Your task to perform on an android device: open app "LiveIn - Share Your Moment" (install if not already installed) Image 0: 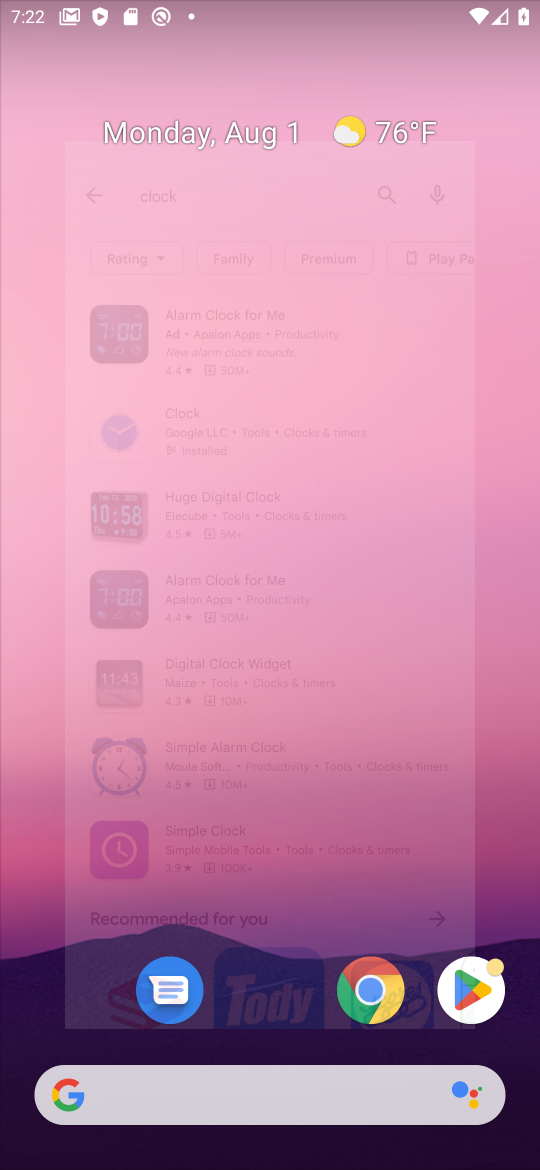
Step 0: click (173, 405)
Your task to perform on an android device: open app "LiveIn - Share Your Moment" (install if not already installed) Image 1: 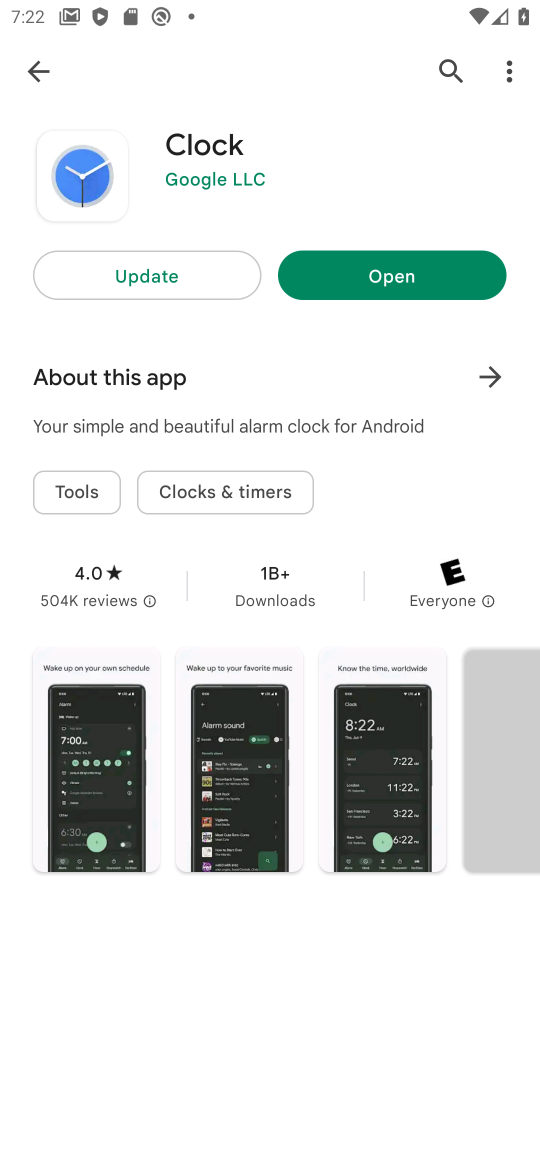
Step 1: press home button
Your task to perform on an android device: open app "LiveIn - Share Your Moment" (install if not already installed) Image 2: 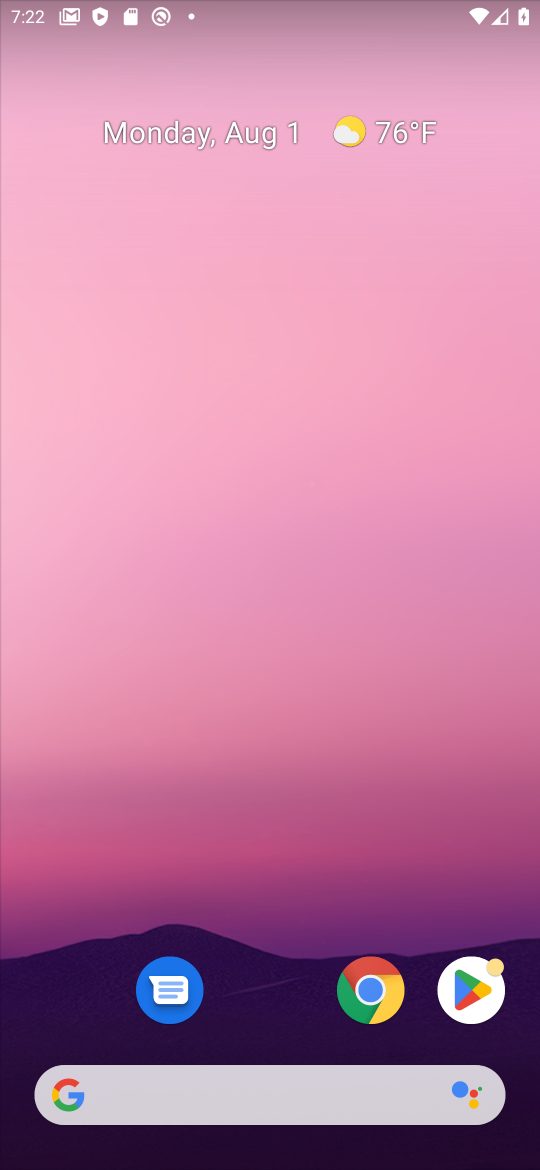
Step 2: press home button
Your task to perform on an android device: open app "LiveIn - Share Your Moment" (install if not already installed) Image 3: 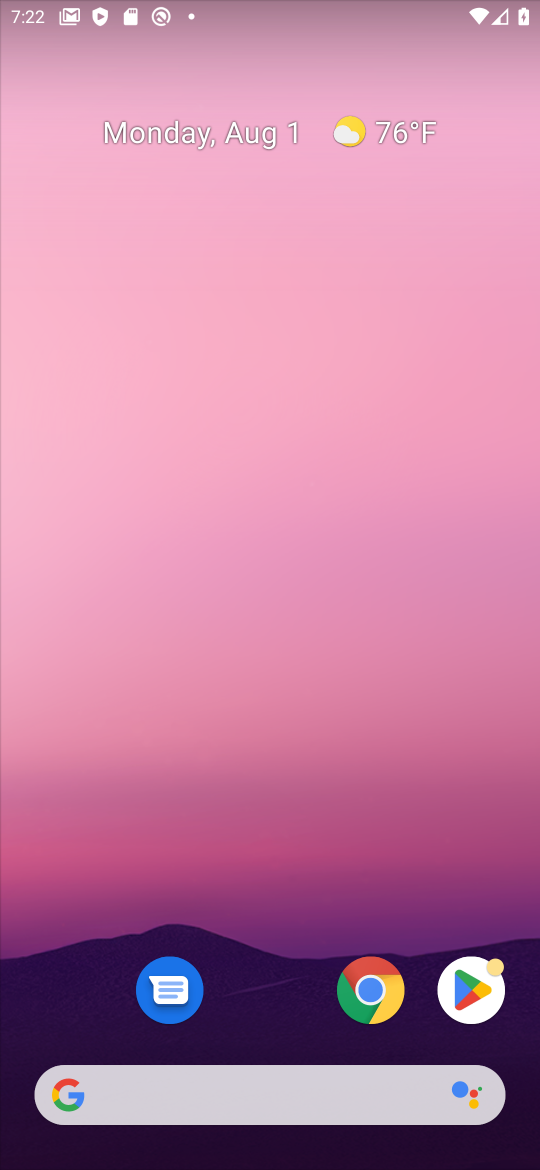
Step 3: click (458, 994)
Your task to perform on an android device: open app "LiveIn - Share Your Moment" (install if not already installed) Image 4: 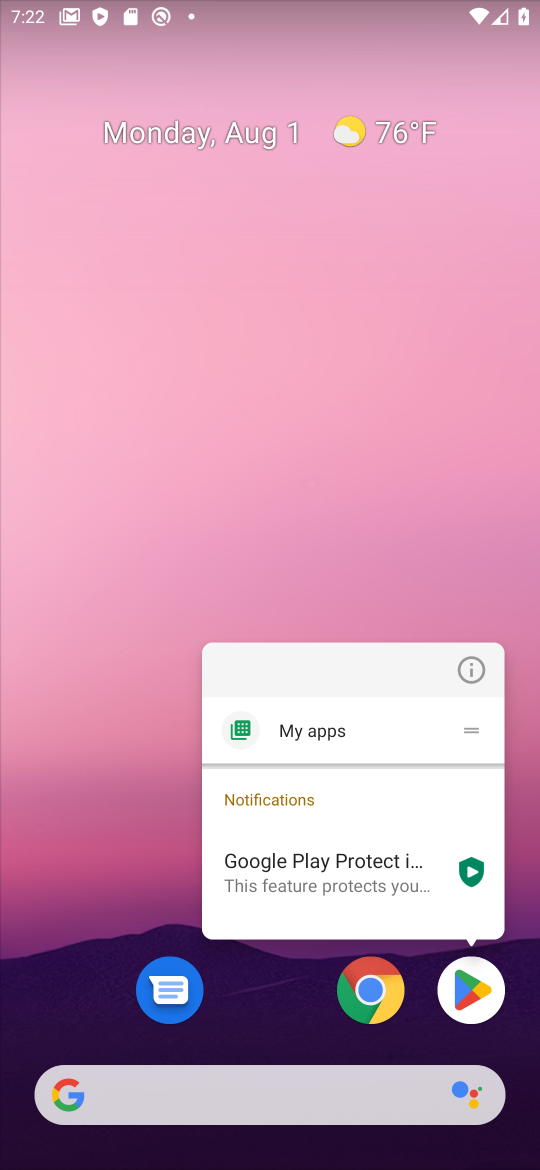
Step 4: click (450, 1003)
Your task to perform on an android device: open app "LiveIn - Share Your Moment" (install if not already installed) Image 5: 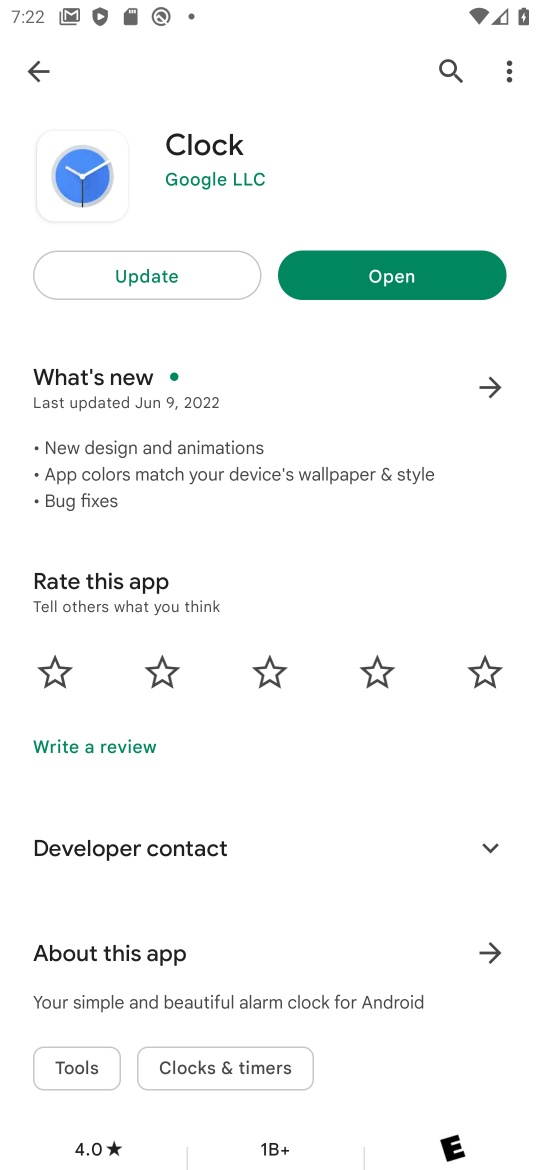
Step 5: click (443, 60)
Your task to perform on an android device: open app "LiveIn - Share Your Moment" (install if not already installed) Image 6: 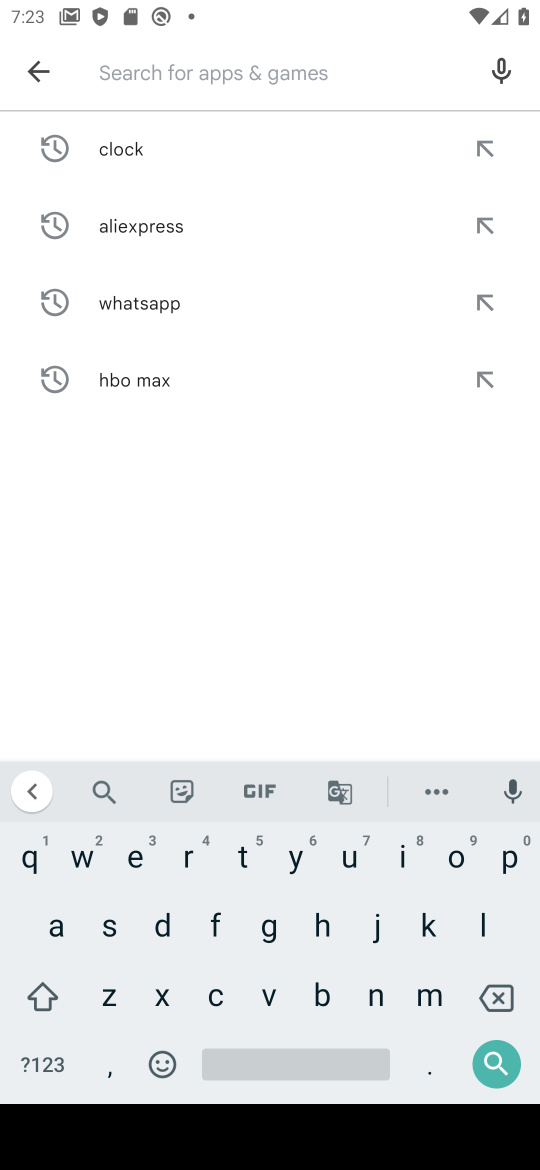
Step 6: click (487, 914)
Your task to perform on an android device: open app "LiveIn - Share Your Moment" (install if not already installed) Image 7: 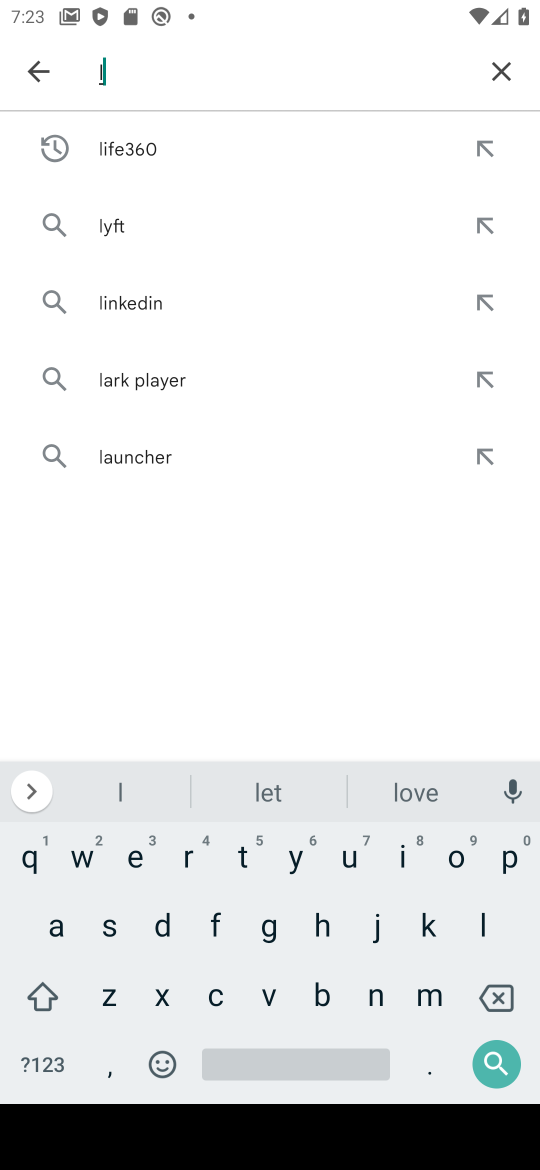
Step 7: click (403, 858)
Your task to perform on an android device: open app "LiveIn - Share Your Moment" (install if not already installed) Image 8: 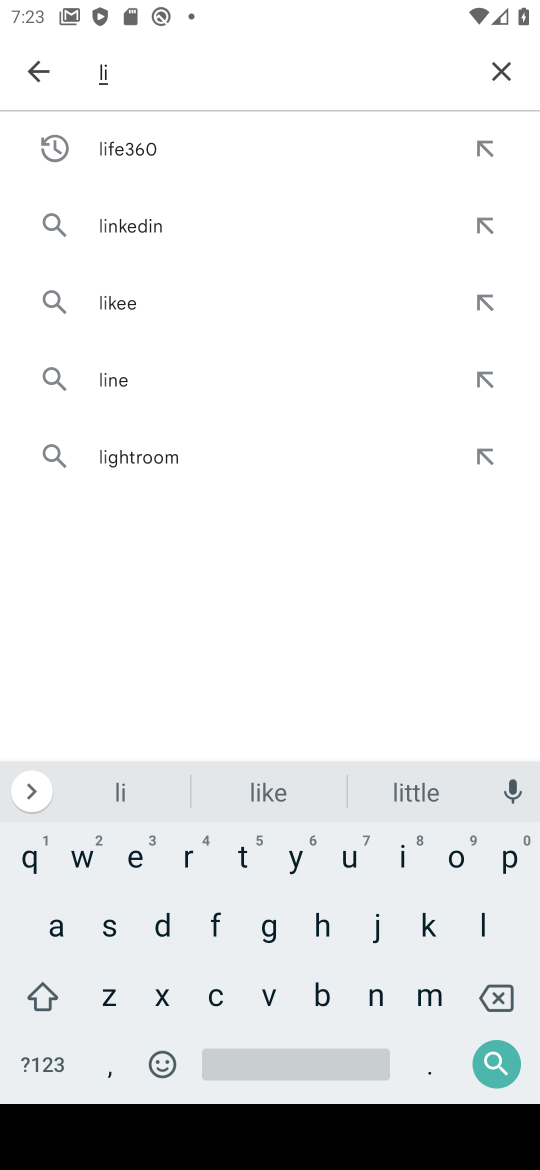
Step 8: click (292, 973)
Your task to perform on an android device: open app "LiveIn - Share Your Moment" (install if not already installed) Image 9: 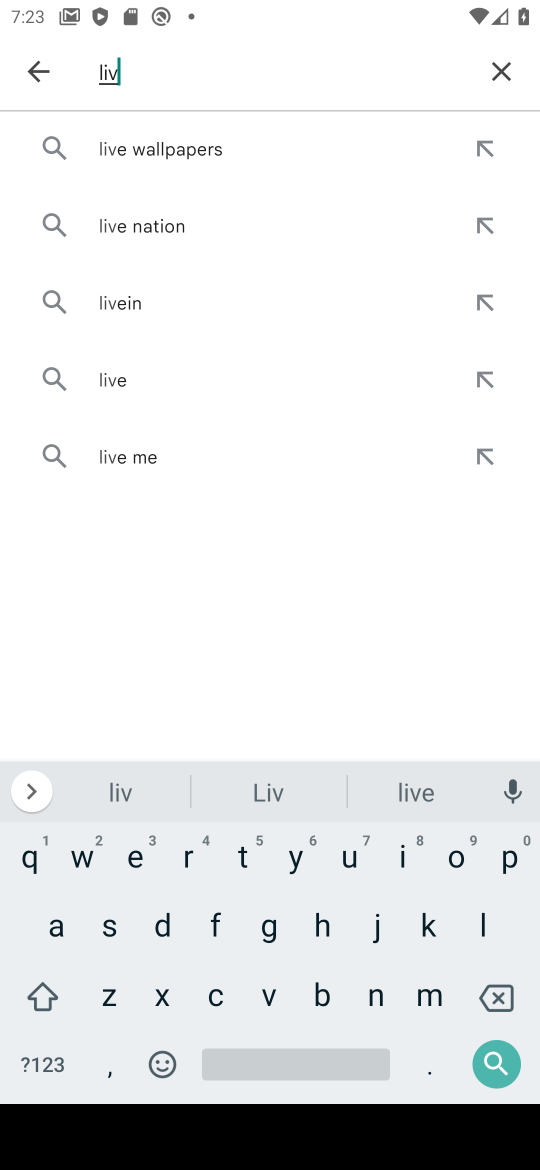
Step 9: click (135, 852)
Your task to perform on an android device: open app "LiveIn - Share Your Moment" (install if not already installed) Image 10: 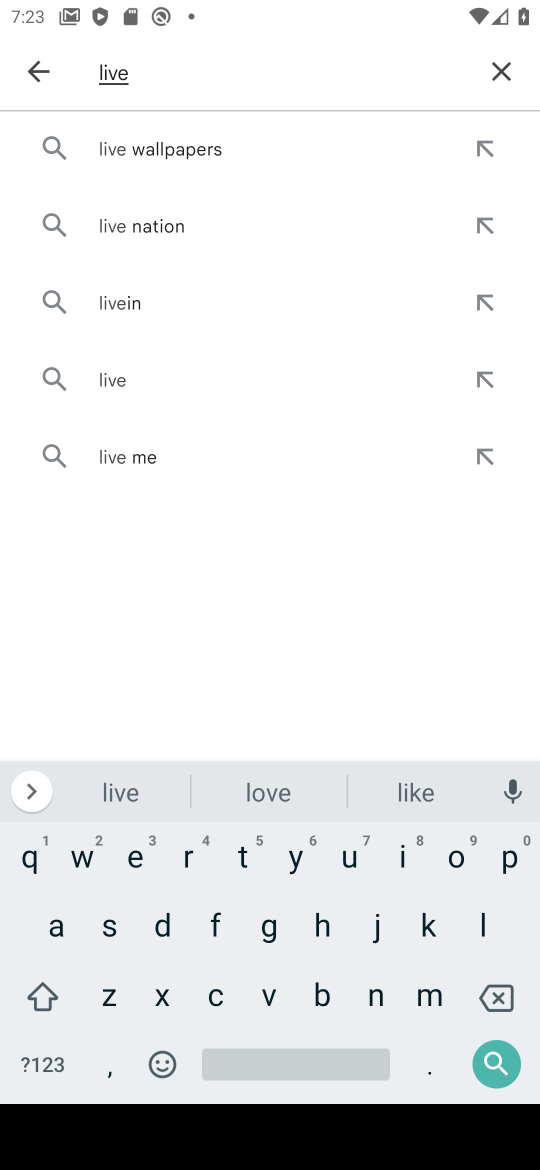
Step 10: click (134, 302)
Your task to perform on an android device: open app "LiveIn - Share Your Moment" (install if not already installed) Image 11: 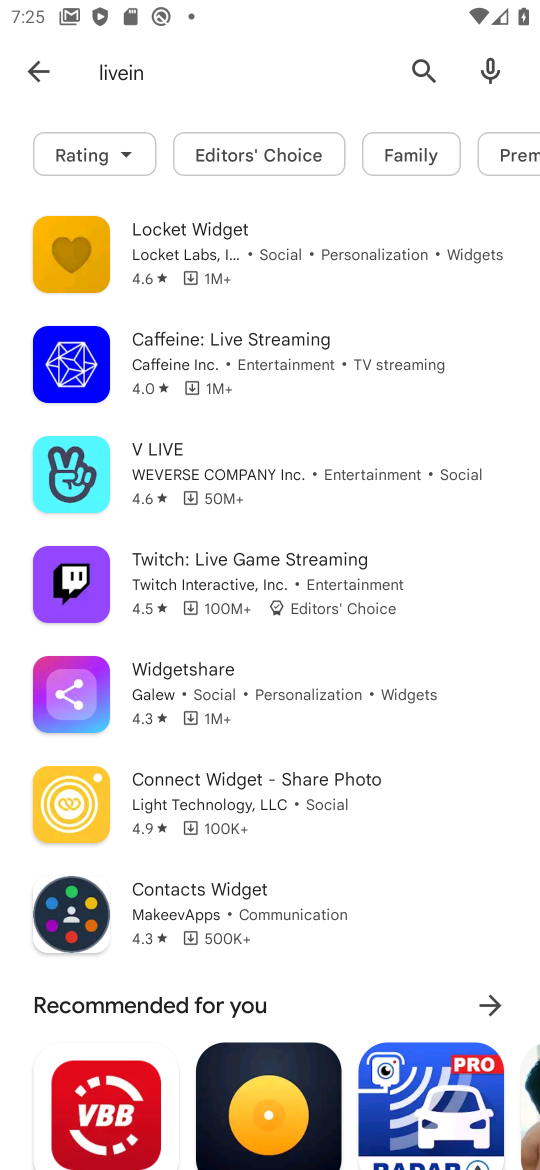
Step 11: task complete